Your task to perform on an android device: Open Google Maps Image 0: 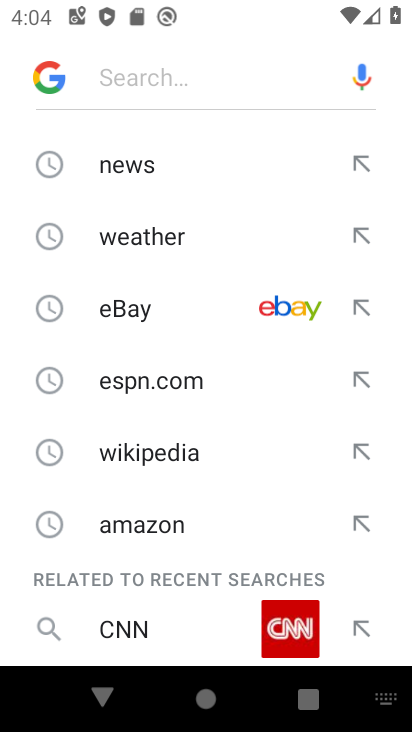
Step 0: press home button
Your task to perform on an android device: Open Google Maps Image 1: 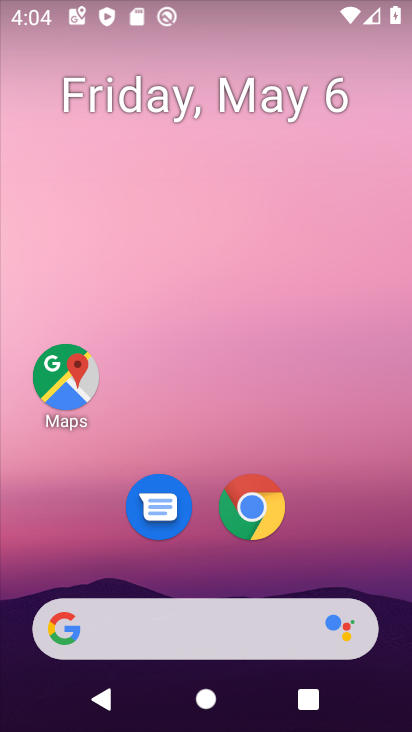
Step 1: click (61, 396)
Your task to perform on an android device: Open Google Maps Image 2: 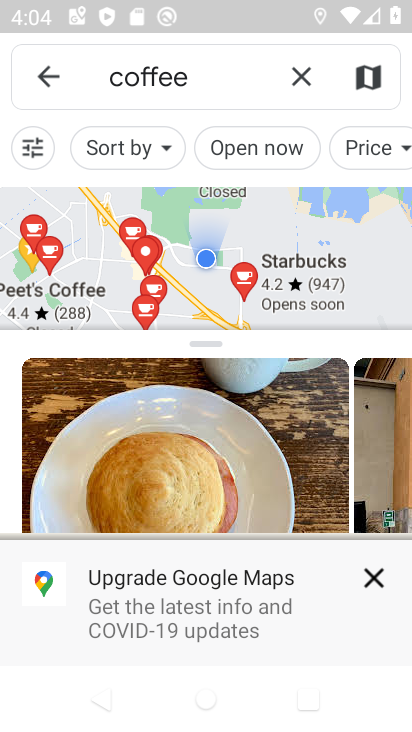
Step 2: task complete